Your task to perform on an android device: Go to Maps Image 0: 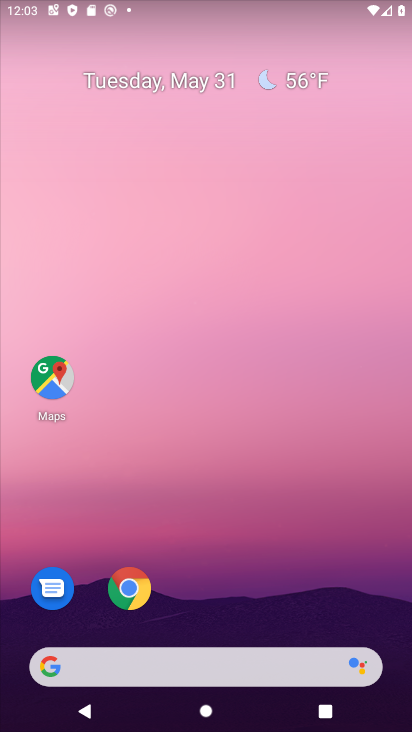
Step 0: click (44, 375)
Your task to perform on an android device: Go to Maps Image 1: 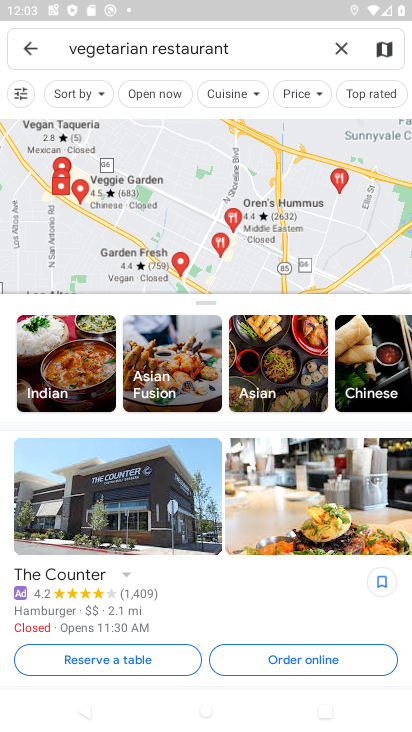
Step 1: task complete